Your task to perform on an android device: change your default location settings in chrome Image 0: 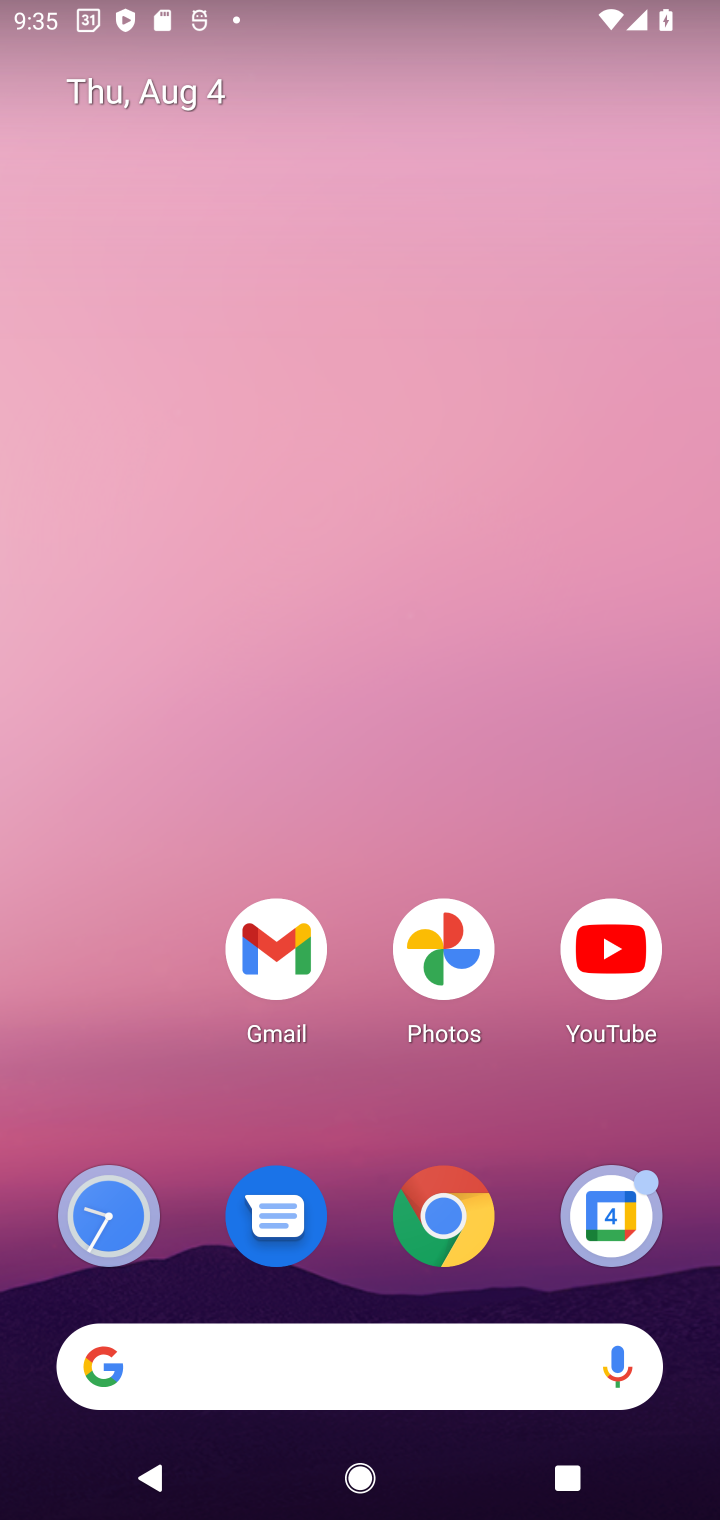
Step 0: drag from (312, 1378) to (374, 420)
Your task to perform on an android device: change your default location settings in chrome Image 1: 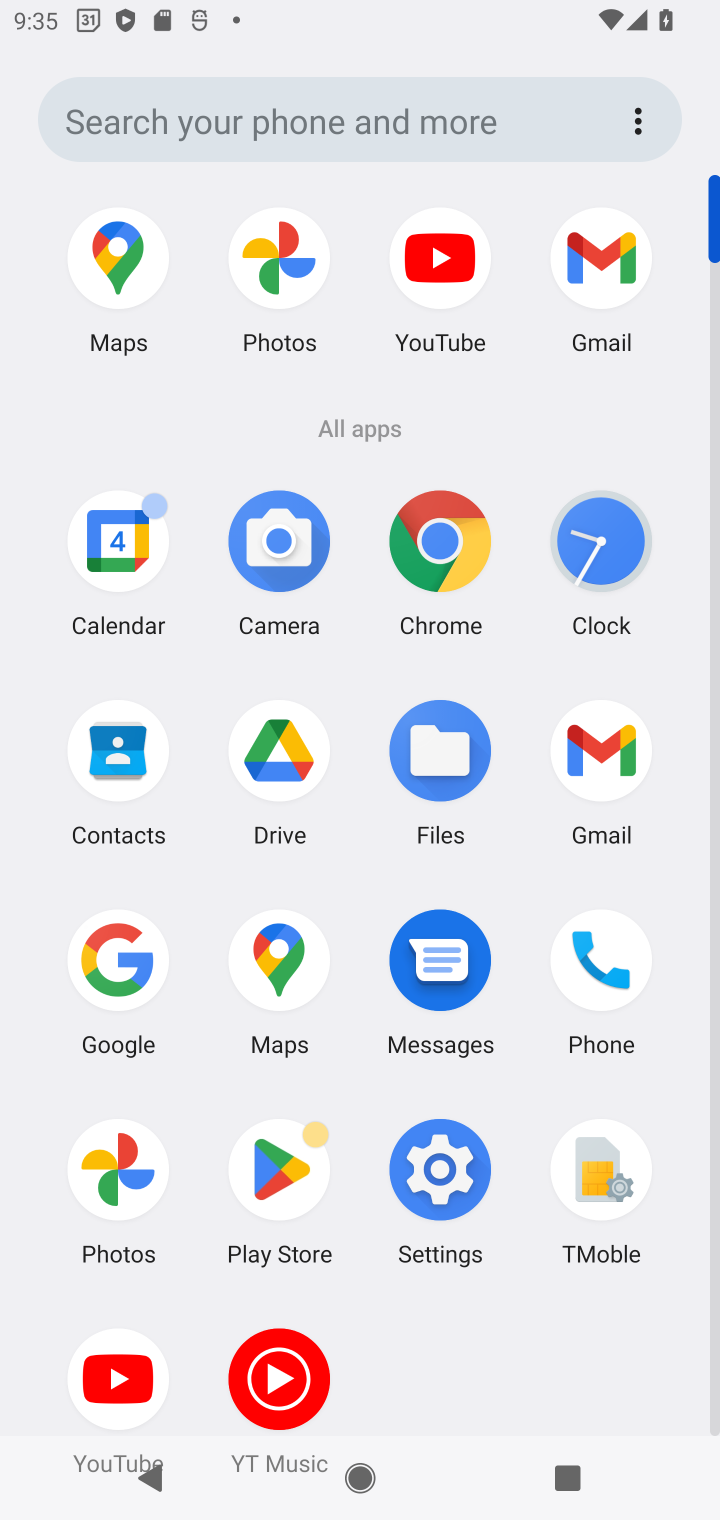
Step 1: click (441, 545)
Your task to perform on an android device: change your default location settings in chrome Image 2: 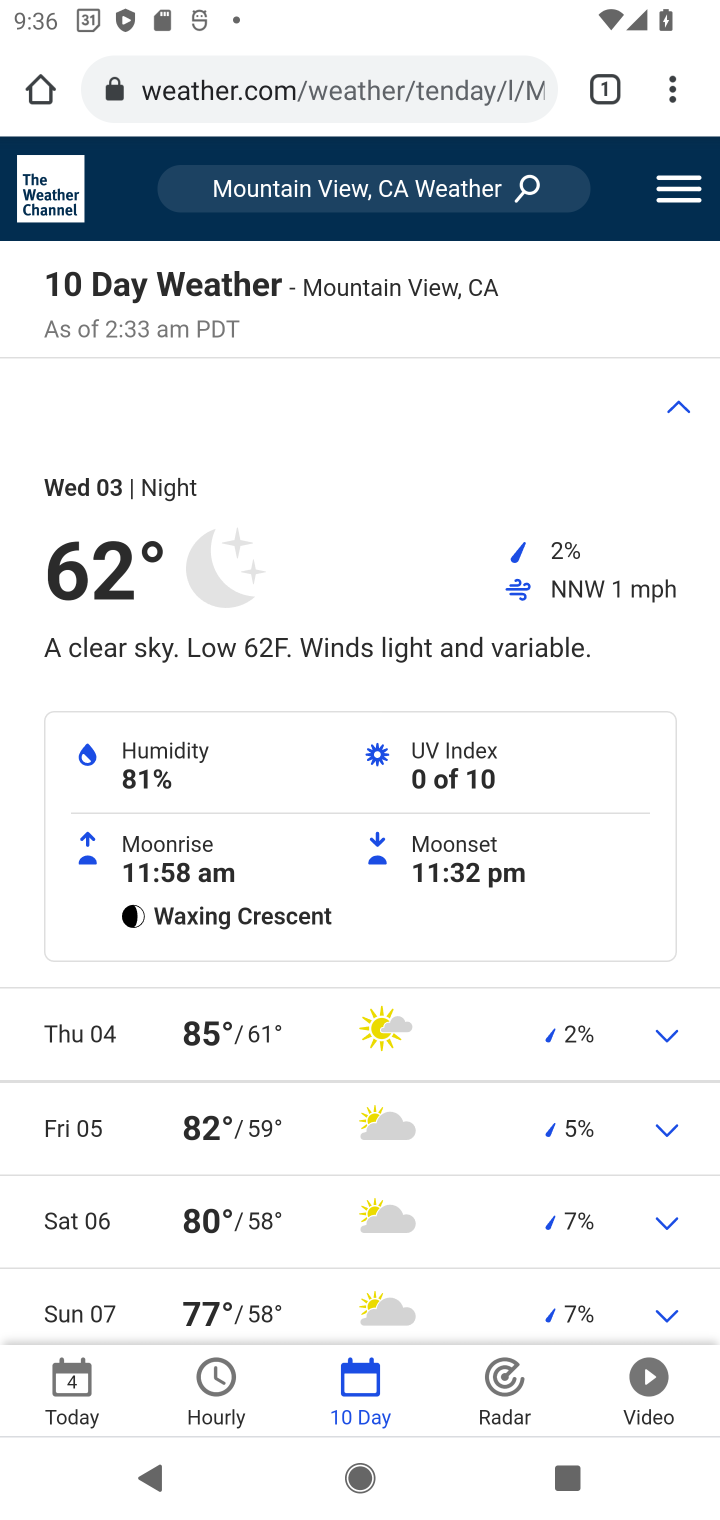
Step 2: click (672, 90)
Your task to perform on an android device: change your default location settings in chrome Image 3: 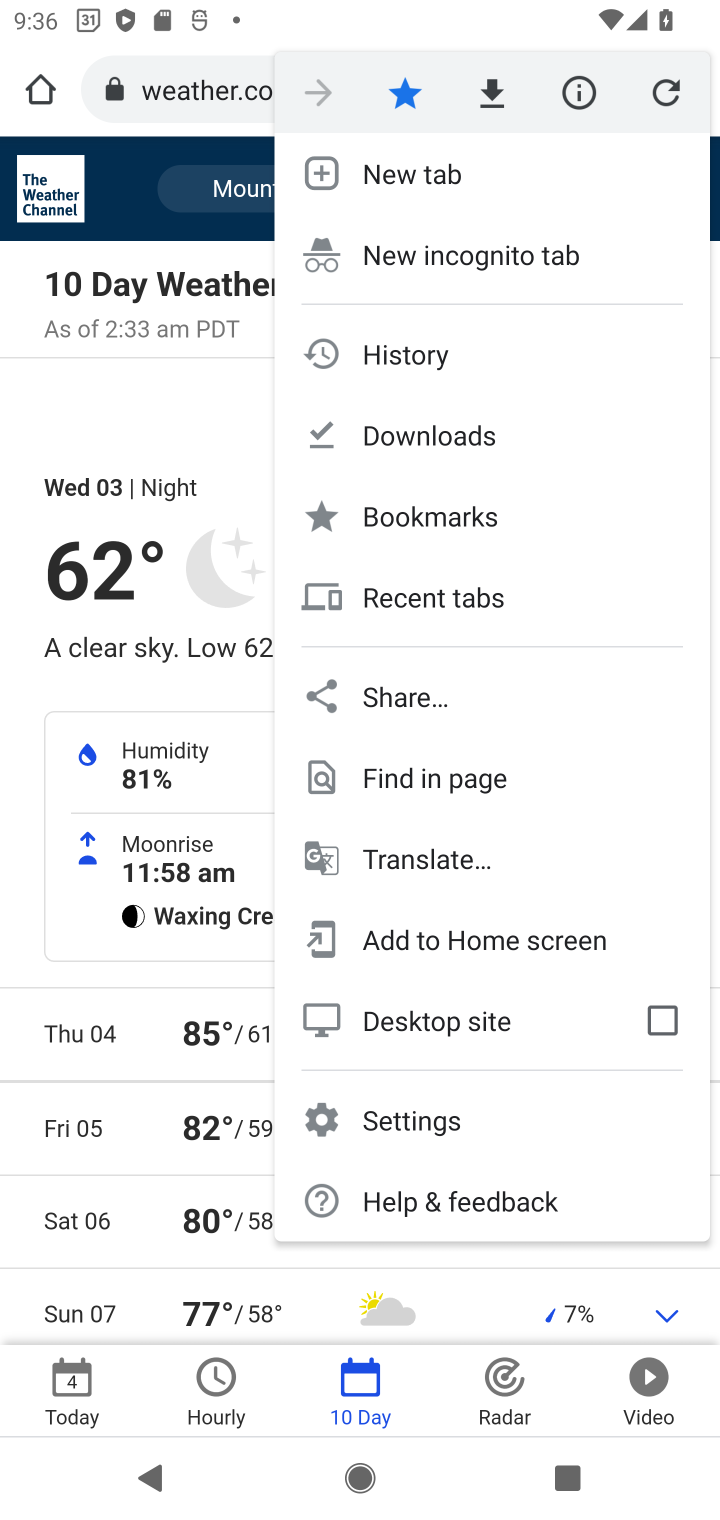
Step 3: click (414, 1118)
Your task to perform on an android device: change your default location settings in chrome Image 4: 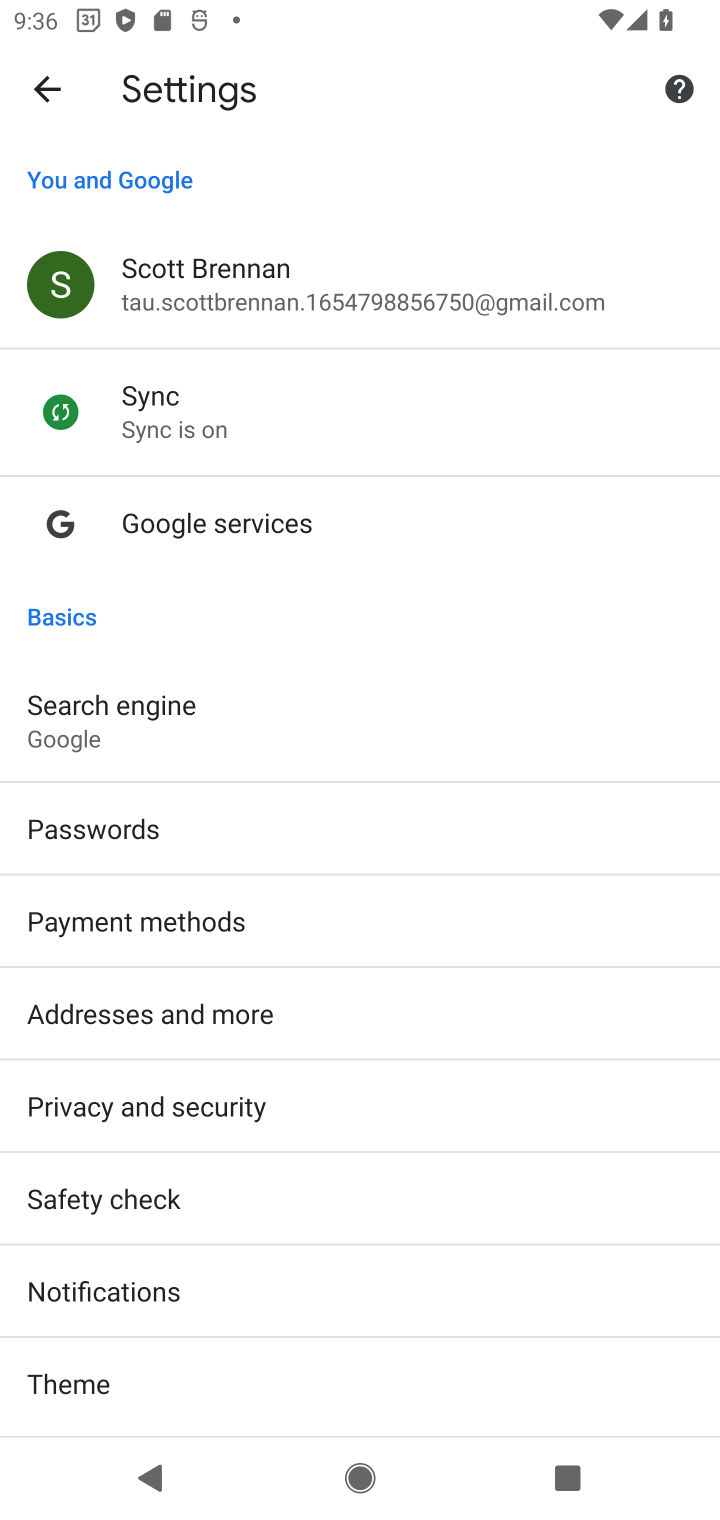
Step 4: drag from (156, 1142) to (228, 575)
Your task to perform on an android device: change your default location settings in chrome Image 5: 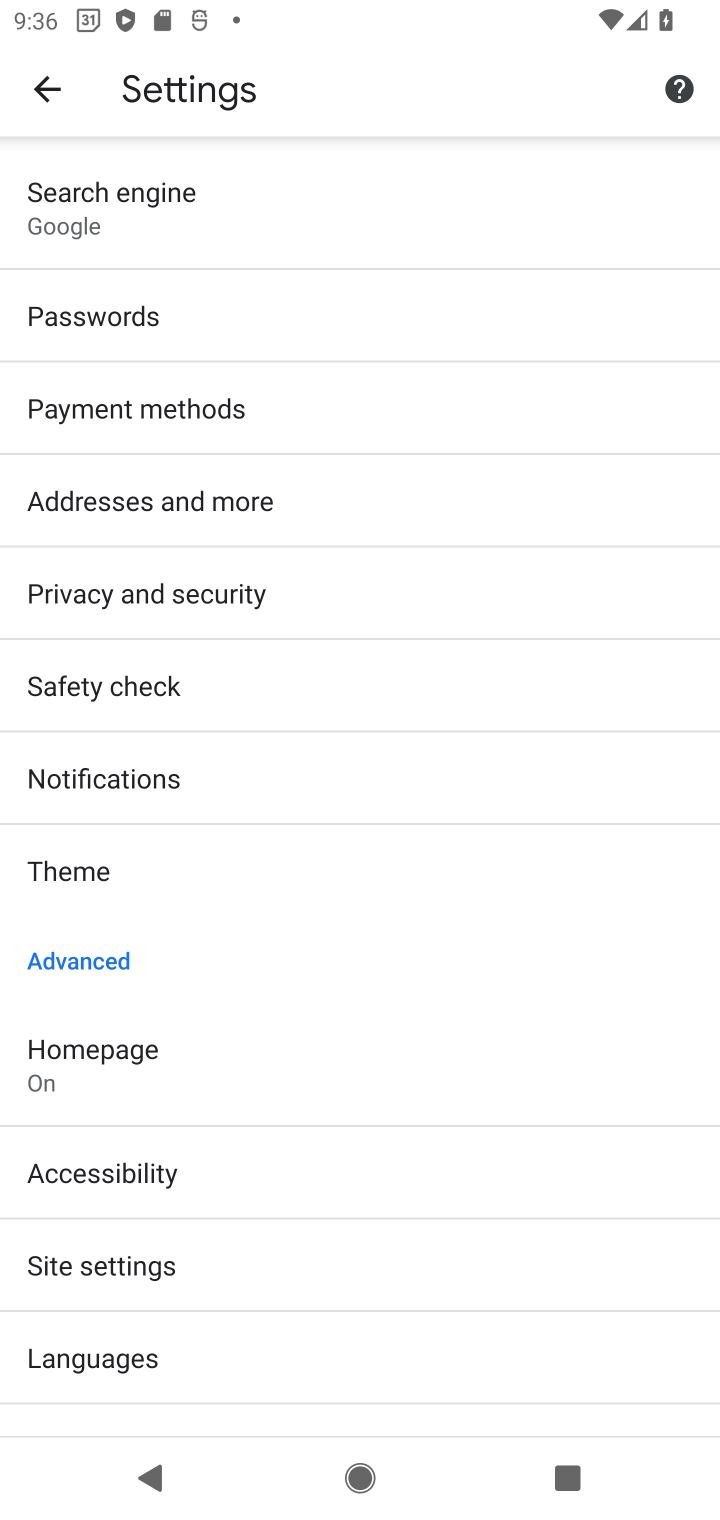
Step 5: click (150, 1267)
Your task to perform on an android device: change your default location settings in chrome Image 6: 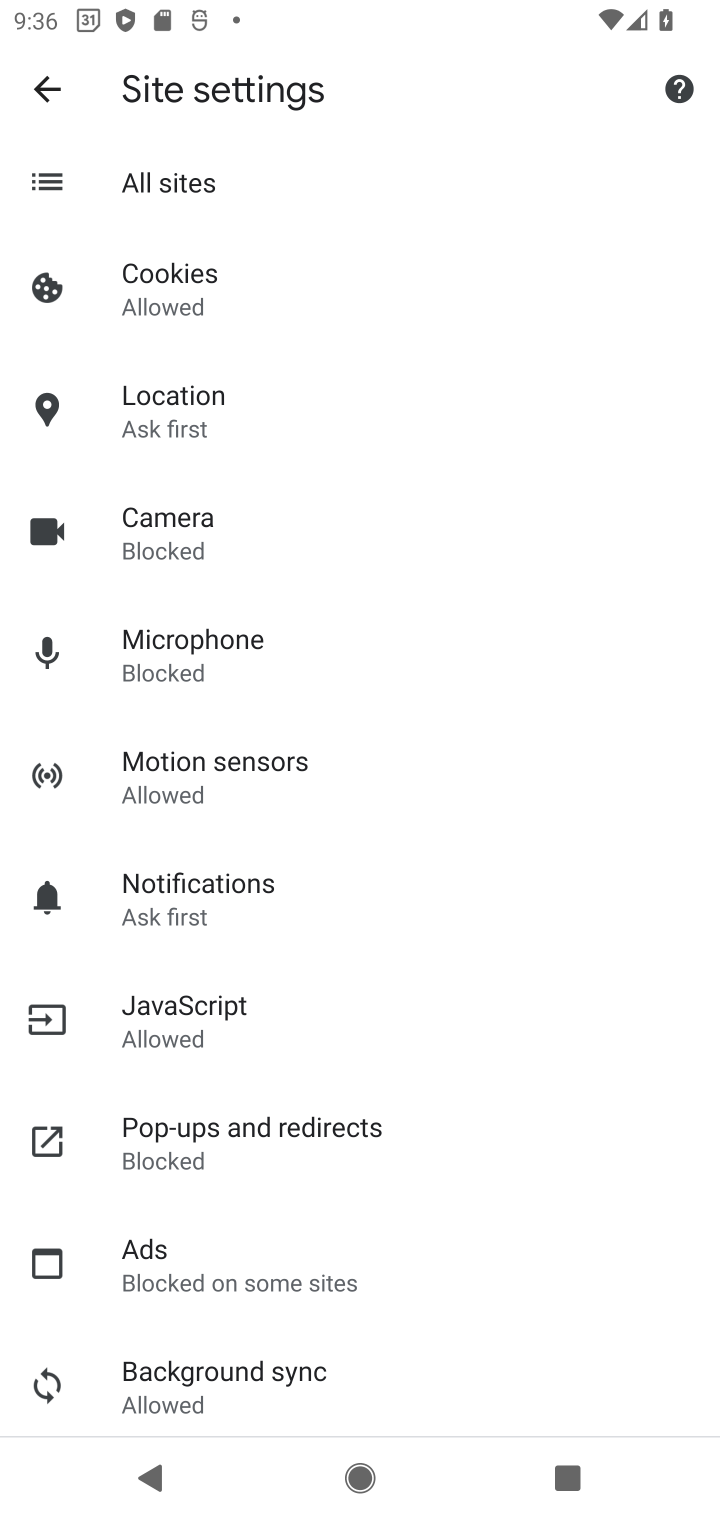
Step 6: click (341, 420)
Your task to perform on an android device: change your default location settings in chrome Image 7: 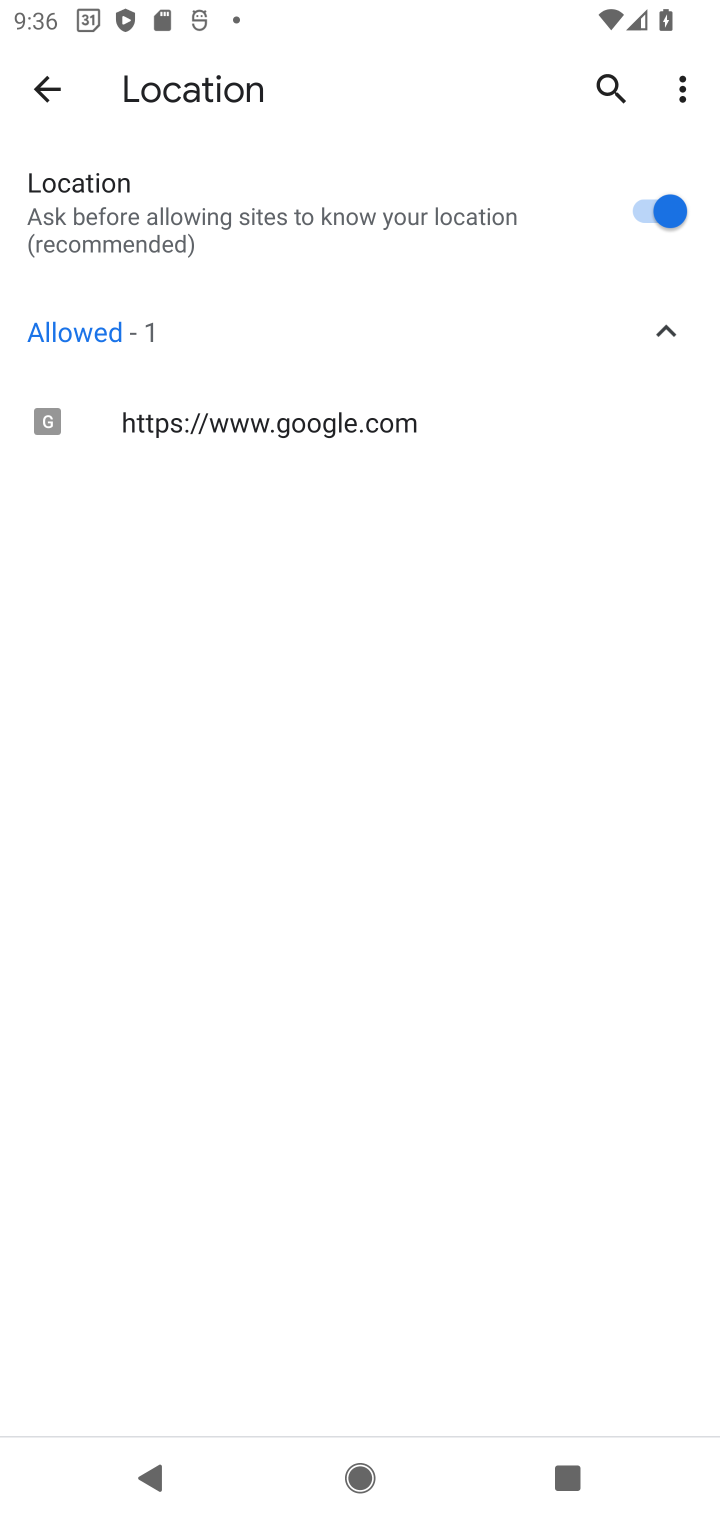
Step 7: click (645, 208)
Your task to perform on an android device: change your default location settings in chrome Image 8: 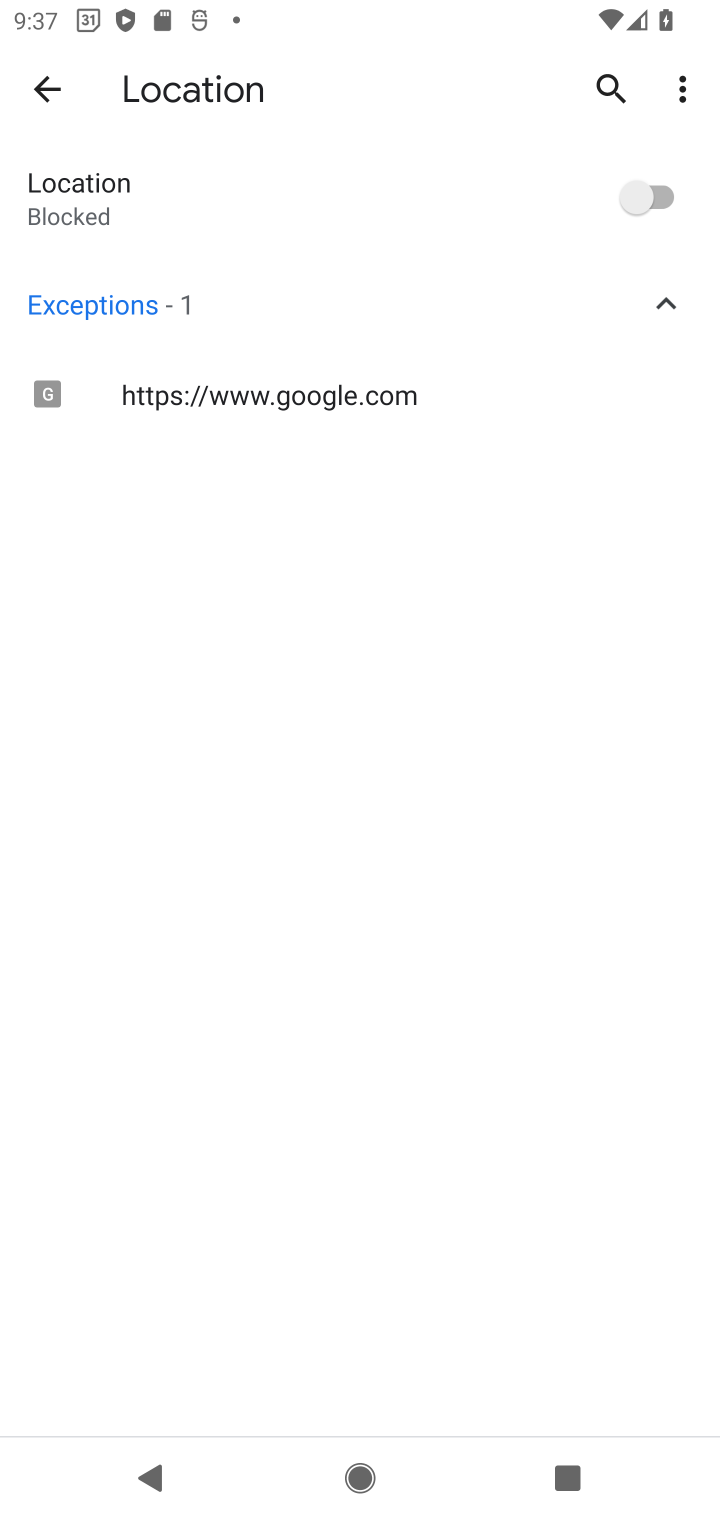
Step 8: task complete